Your task to perform on an android device: Go to CNN.com Image 0: 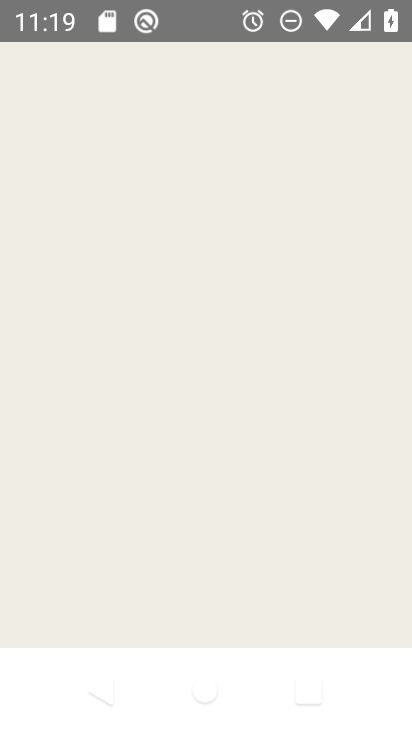
Step 0: click (240, 615)
Your task to perform on an android device: Go to CNN.com Image 1: 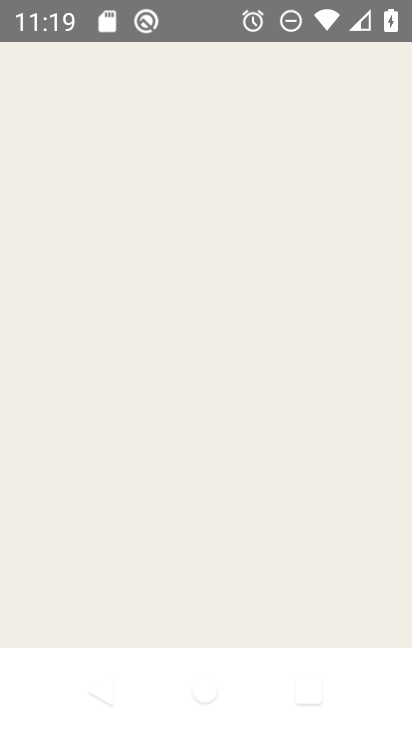
Step 1: press home button
Your task to perform on an android device: Go to CNN.com Image 2: 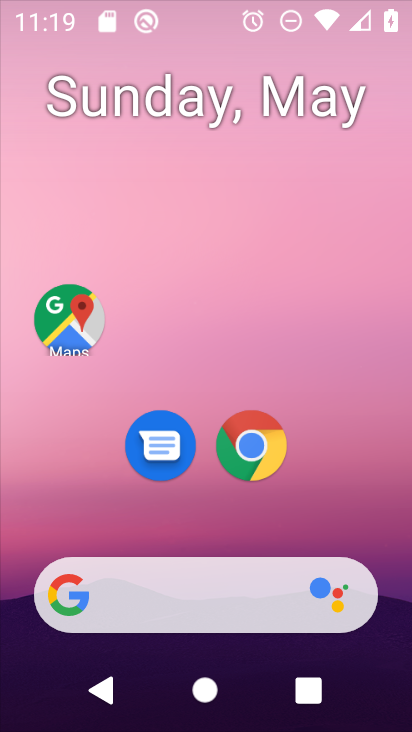
Step 2: drag from (295, 580) to (313, 209)
Your task to perform on an android device: Go to CNN.com Image 3: 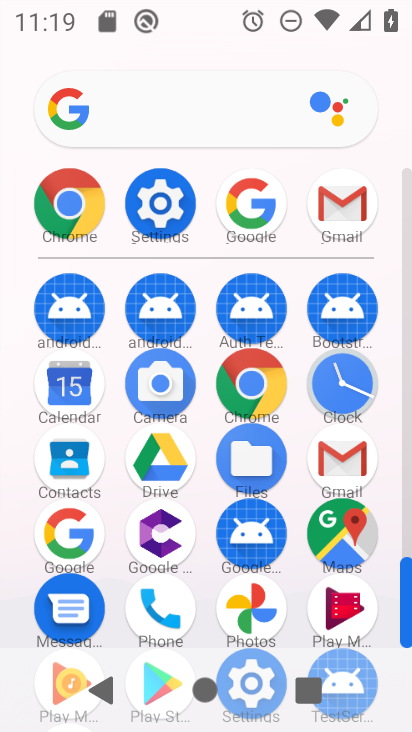
Step 3: click (68, 233)
Your task to perform on an android device: Go to CNN.com Image 4: 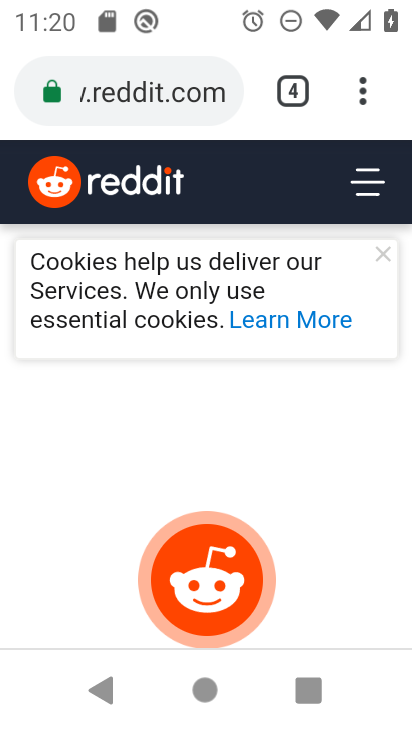
Step 4: press home button
Your task to perform on an android device: Go to CNN.com Image 5: 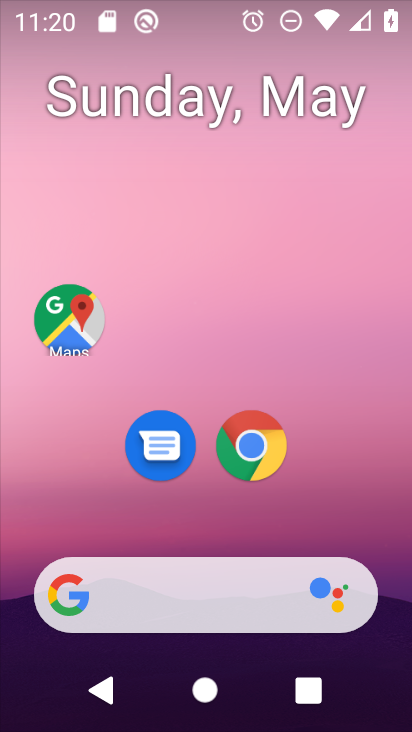
Step 5: click (269, 465)
Your task to perform on an android device: Go to CNN.com Image 6: 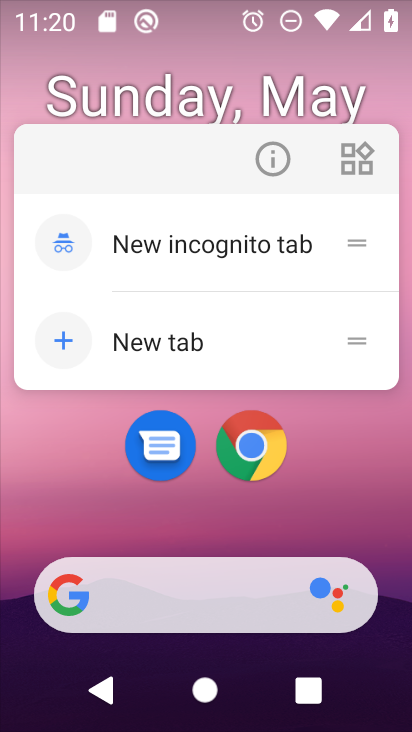
Step 6: click (239, 472)
Your task to perform on an android device: Go to CNN.com Image 7: 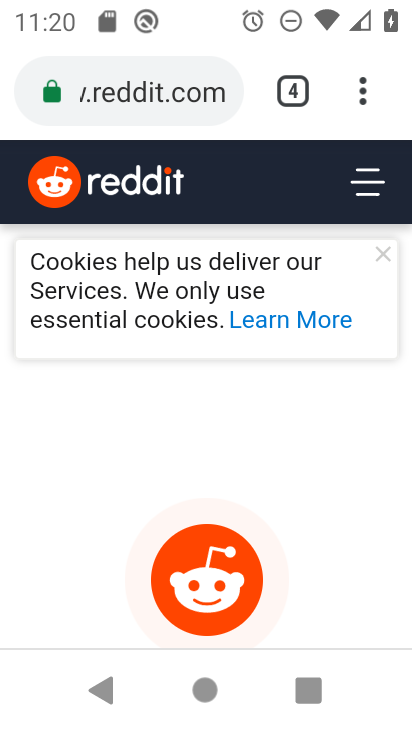
Step 7: click (157, 108)
Your task to perform on an android device: Go to CNN.com Image 8: 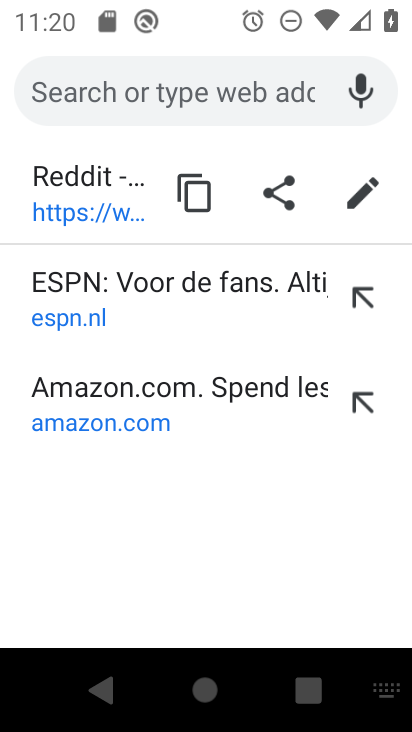
Step 8: type "cnn"
Your task to perform on an android device: Go to CNN.com Image 9: 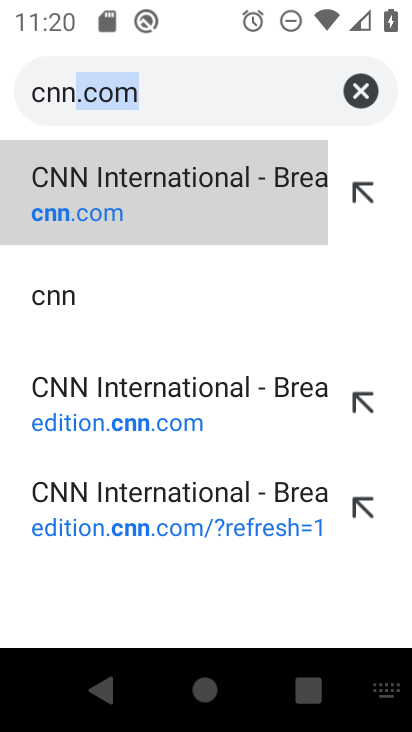
Step 9: click (201, 190)
Your task to perform on an android device: Go to CNN.com Image 10: 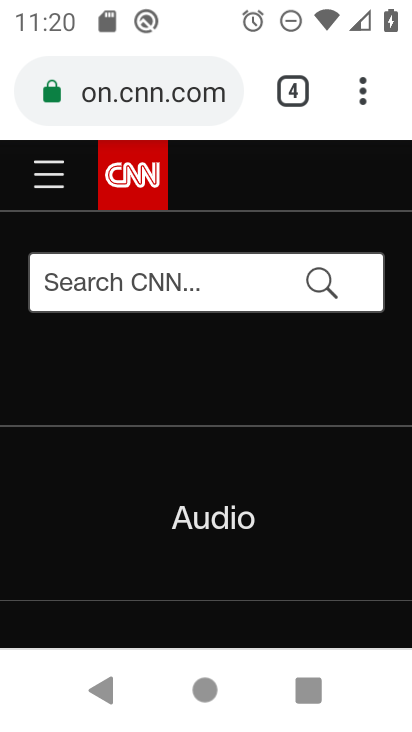
Step 10: task complete